Your task to perform on an android device: turn notification dots off Image 0: 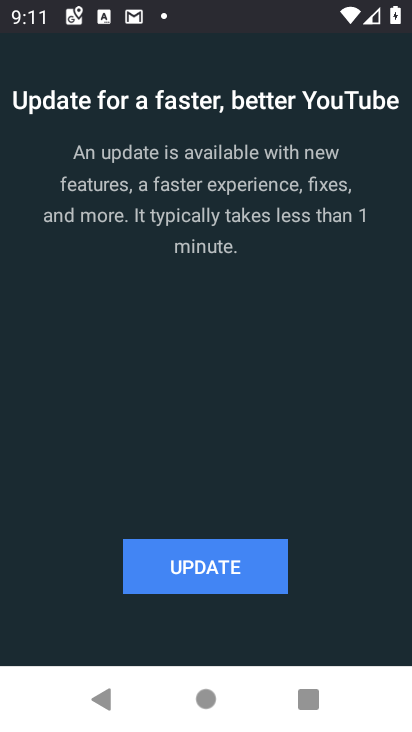
Step 0: press home button
Your task to perform on an android device: turn notification dots off Image 1: 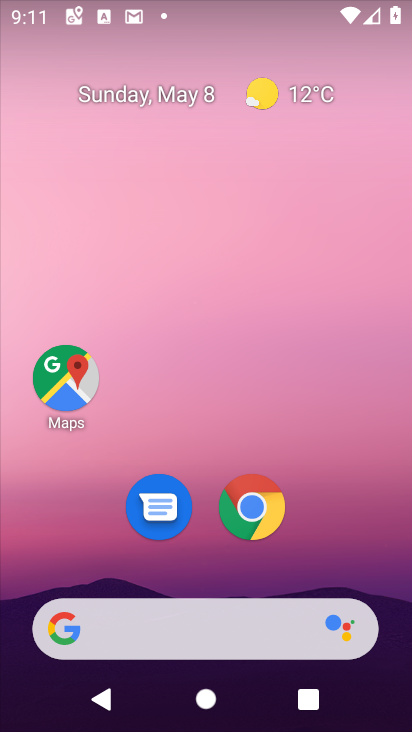
Step 1: drag from (248, 709) to (228, 56)
Your task to perform on an android device: turn notification dots off Image 2: 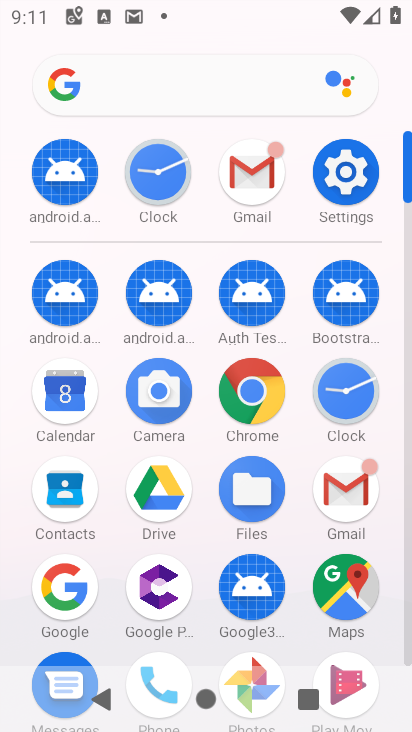
Step 2: click (332, 190)
Your task to perform on an android device: turn notification dots off Image 3: 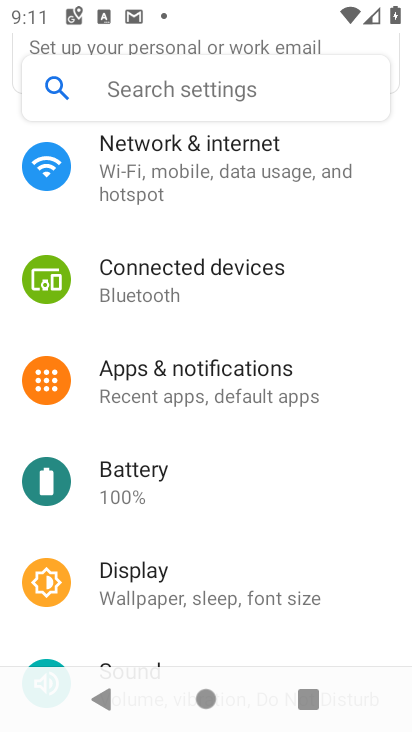
Step 3: click (292, 391)
Your task to perform on an android device: turn notification dots off Image 4: 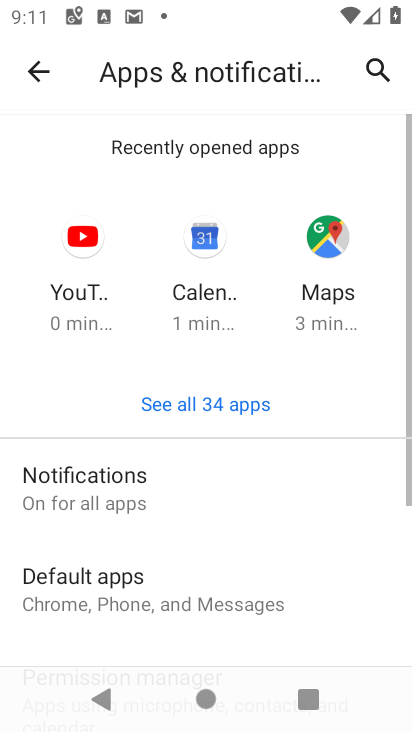
Step 4: click (123, 502)
Your task to perform on an android device: turn notification dots off Image 5: 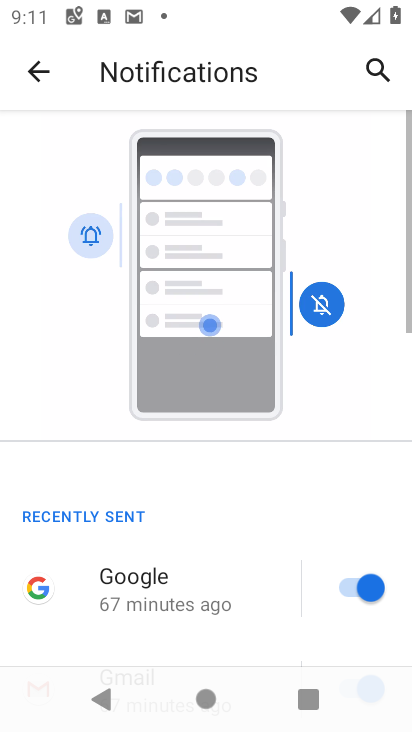
Step 5: drag from (159, 504) to (60, 1)
Your task to perform on an android device: turn notification dots off Image 6: 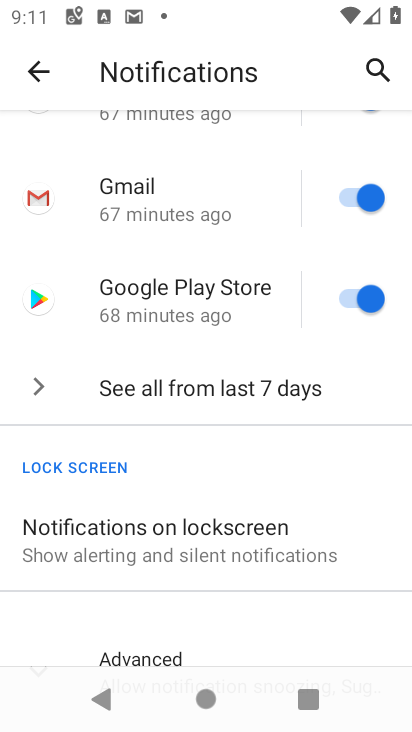
Step 6: drag from (286, 549) to (206, 54)
Your task to perform on an android device: turn notification dots off Image 7: 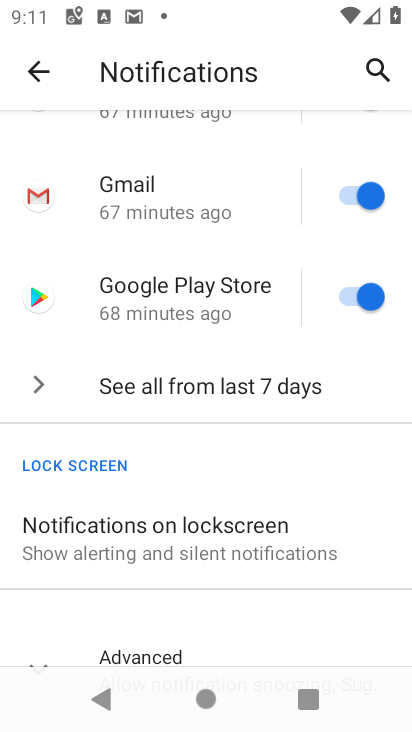
Step 7: click (204, 656)
Your task to perform on an android device: turn notification dots off Image 8: 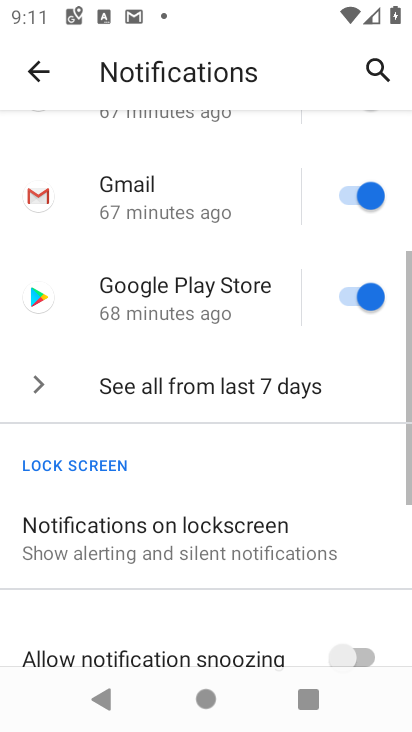
Step 8: drag from (311, 546) to (119, 73)
Your task to perform on an android device: turn notification dots off Image 9: 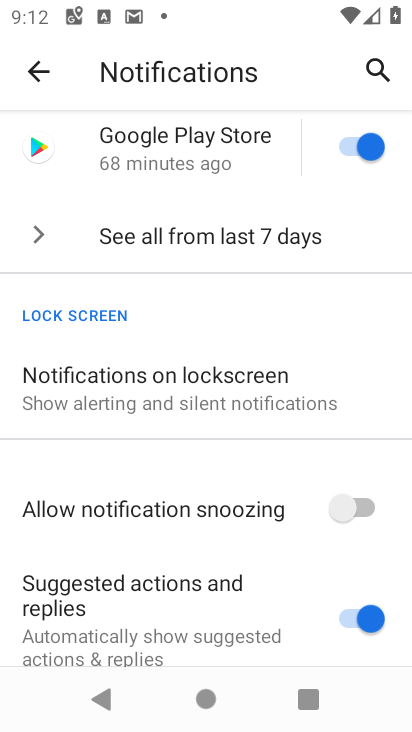
Step 9: drag from (243, 581) to (123, 53)
Your task to perform on an android device: turn notification dots off Image 10: 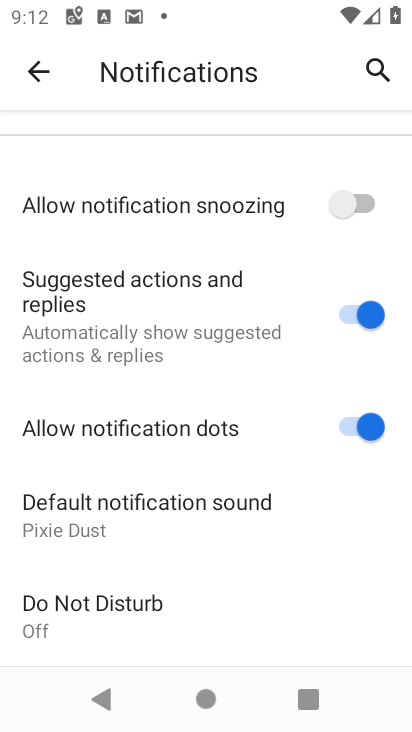
Step 10: click (370, 431)
Your task to perform on an android device: turn notification dots off Image 11: 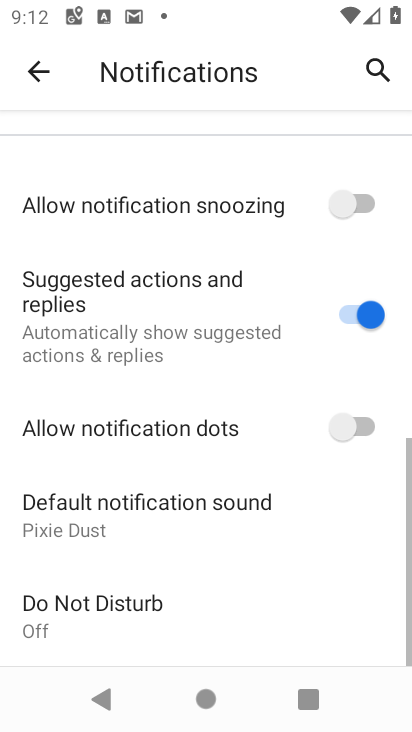
Step 11: task complete